Your task to perform on an android device: open app "LiveIn - Share Your Moment" Image 0: 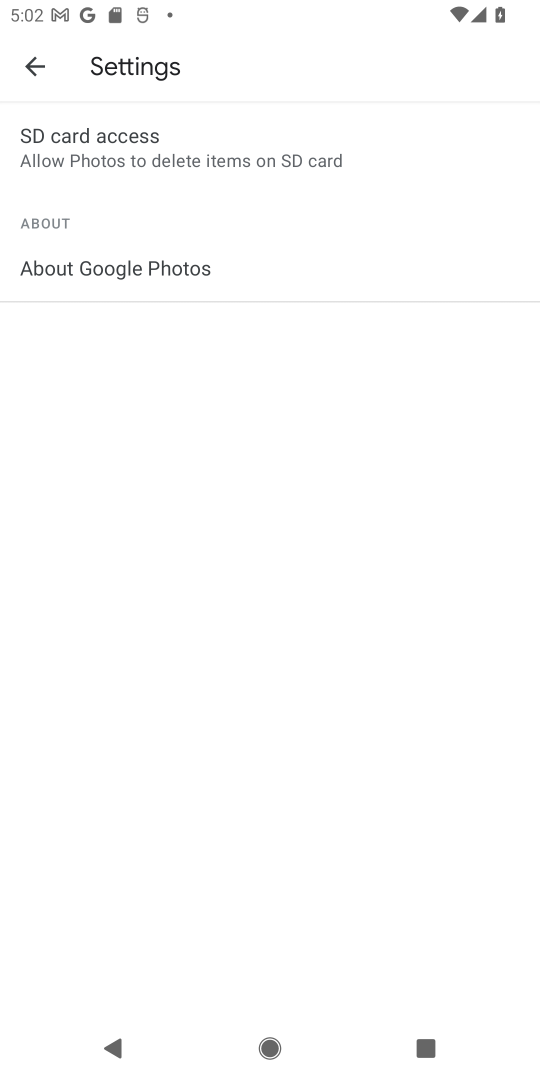
Step 0: press home button
Your task to perform on an android device: open app "LiveIn - Share Your Moment" Image 1: 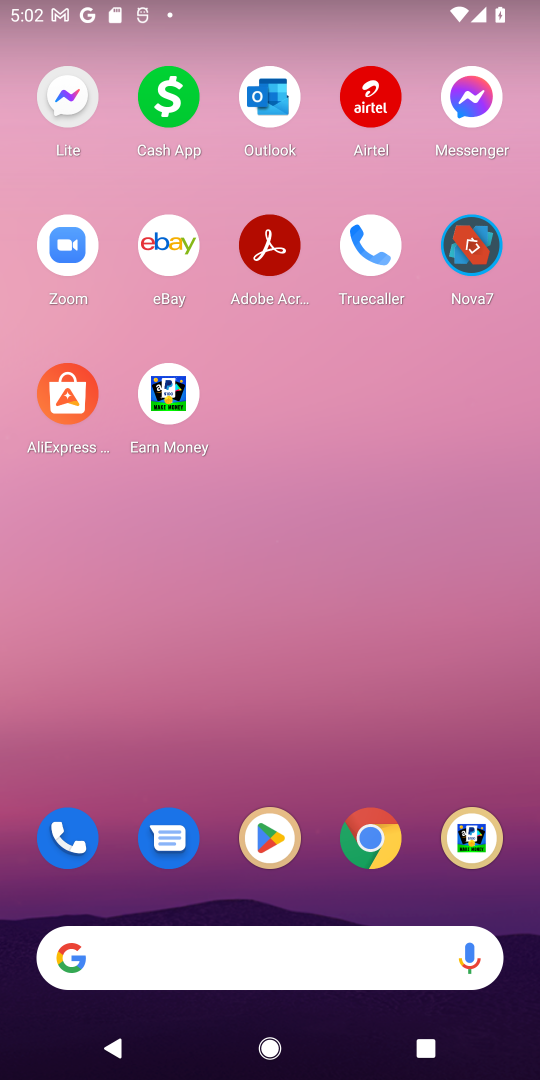
Step 1: drag from (210, 967) to (243, 139)
Your task to perform on an android device: open app "LiveIn - Share Your Moment" Image 2: 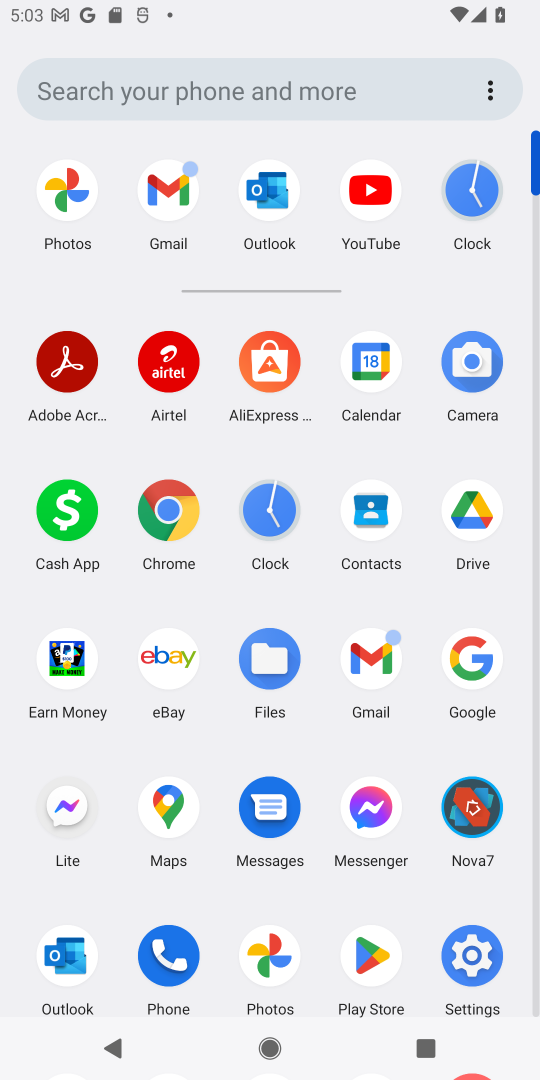
Step 2: click (374, 955)
Your task to perform on an android device: open app "LiveIn - Share Your Moment" Image 3: 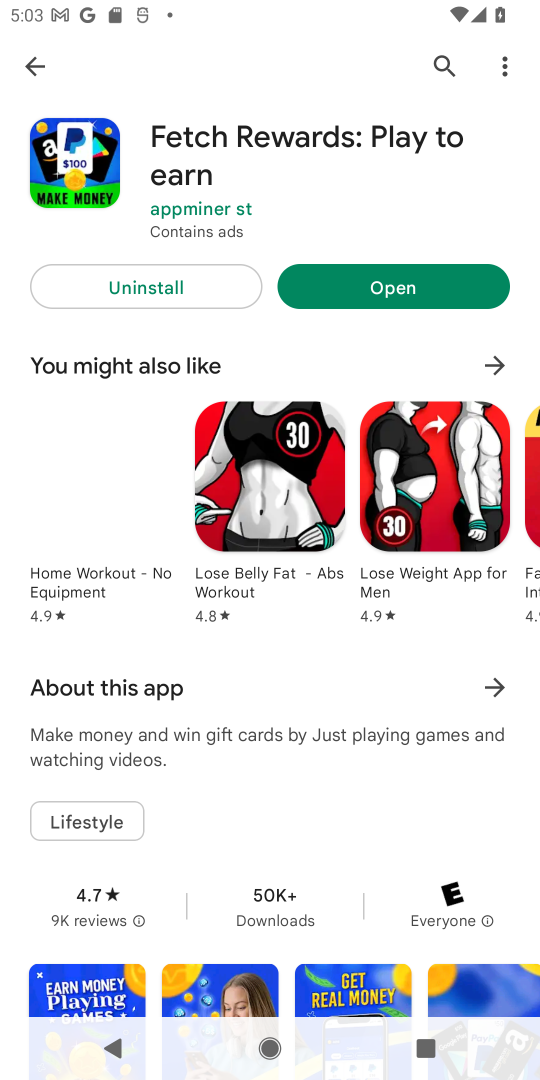
Step 3: press back button
Your task to perform on an android device: open app "LiveIn - Share Your Moment" Image 4: 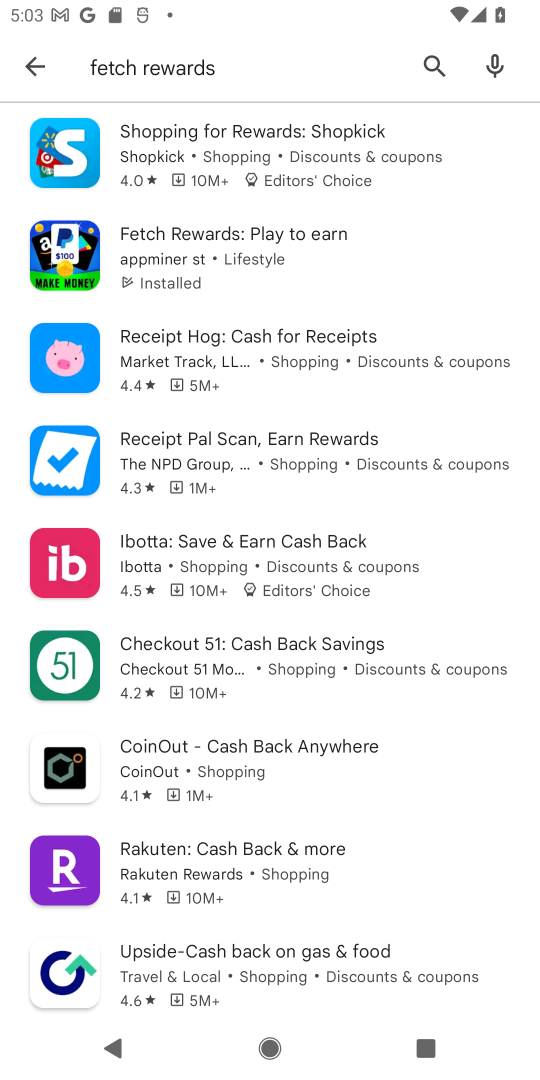
Step 4: press back button
Your task to perform on an android device: open app "LiveIn - Share Your Moment" Image 5: 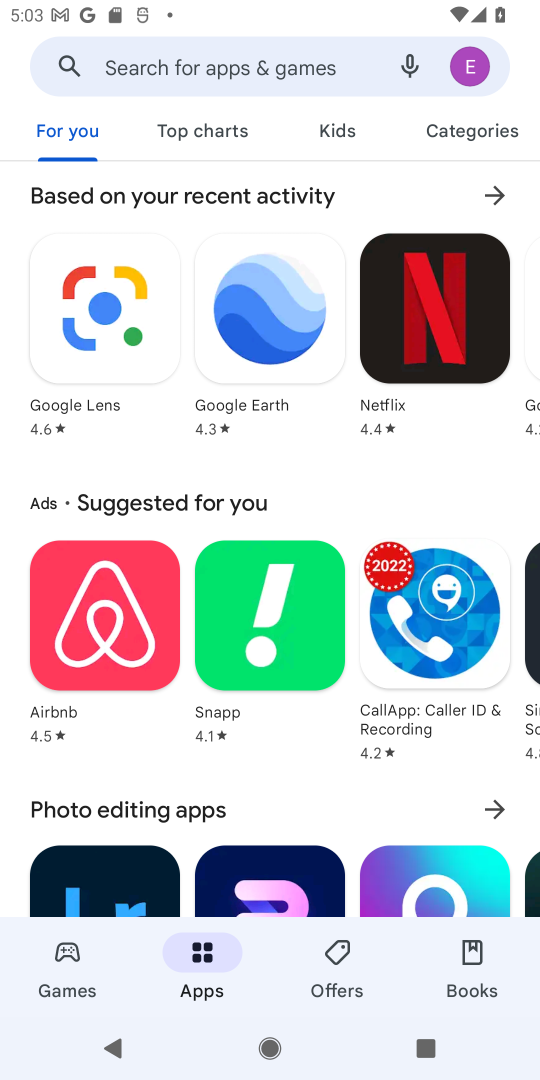
Step 5: click (241, 64)
Your task to perform on an android device: open app "LiveIn - Share Your Moment" Image 6: 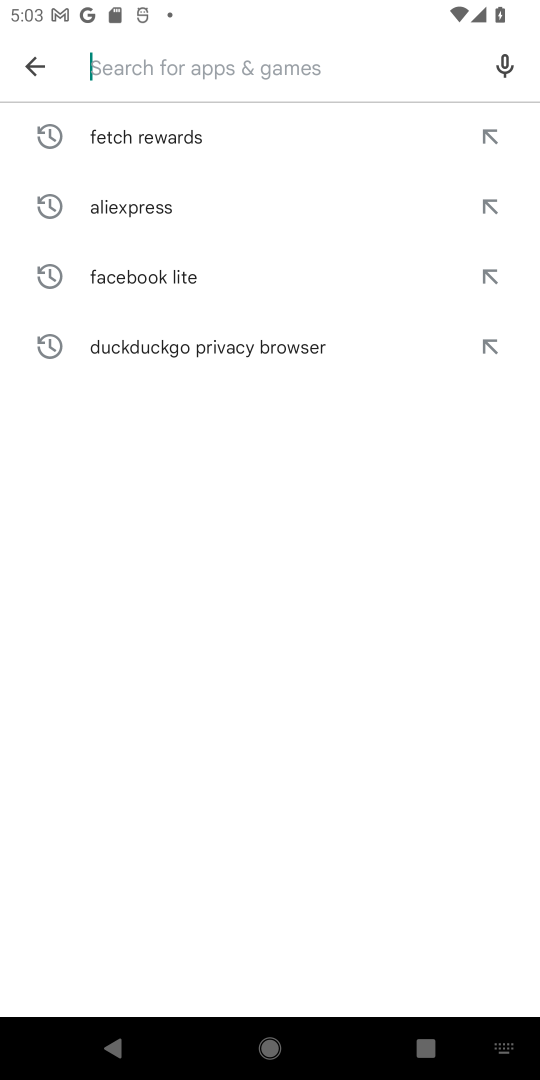
Step 6: type "LiveIn - Share Your Moment"
Your task to perform on an android device: open app "LiveIn - Share Your Moment" Image 7: 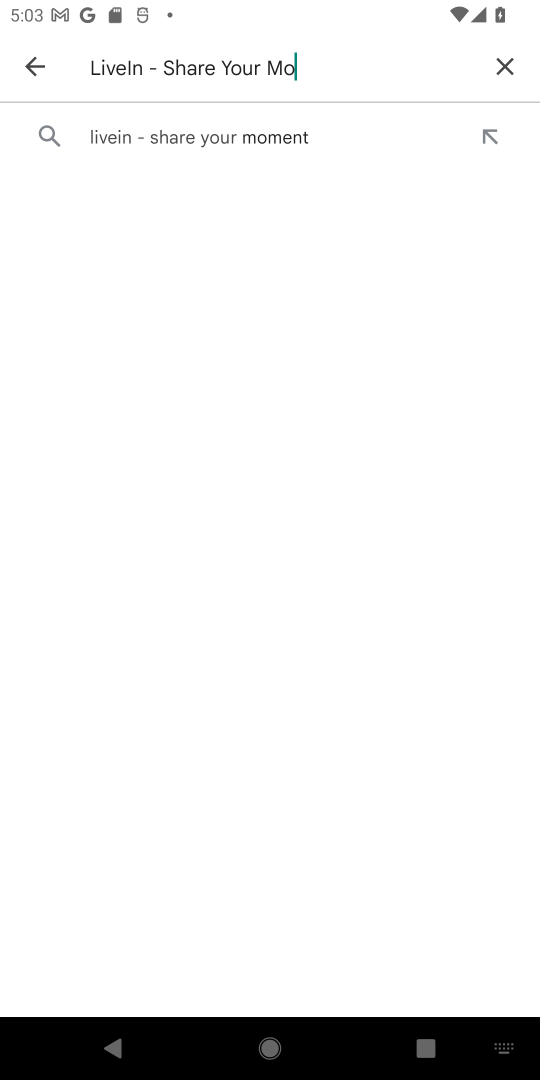
Step 7: type ""
Your task to perform on an android device: open app "LiveIn - Share Your Moment" Image 8: 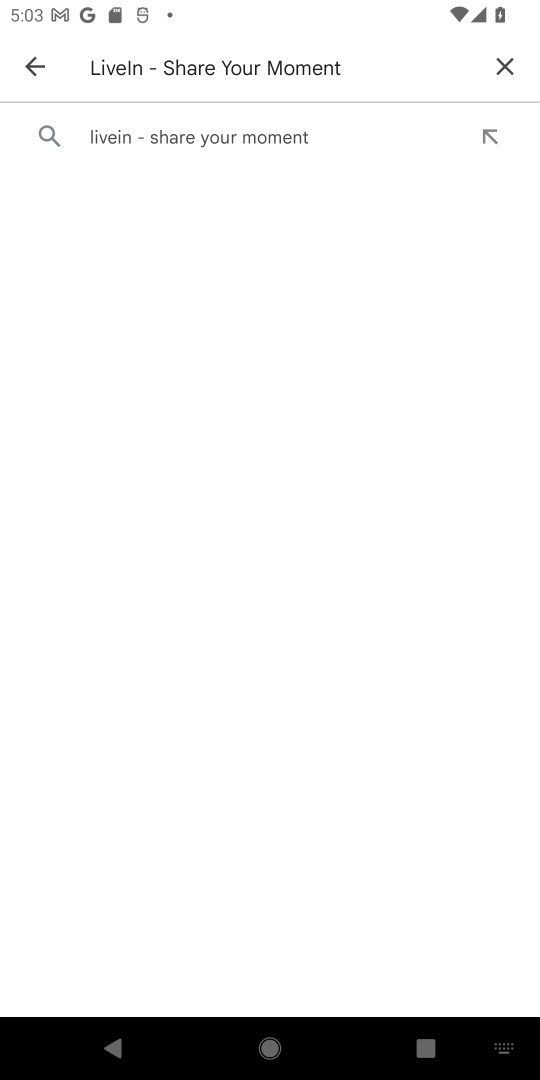
Step 8: click (255, 148)
Your task to perform on an android device: open app "LiveIn - Share Your Moment" Image 9: 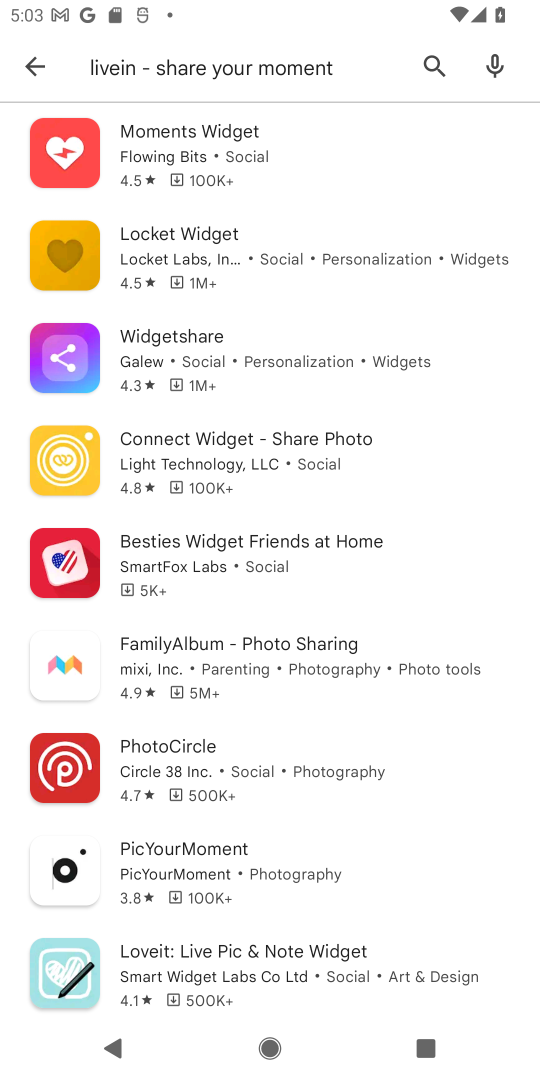
Step 9: task complete